Your task to perform on an android device: What's on my calendar today? Image 0: 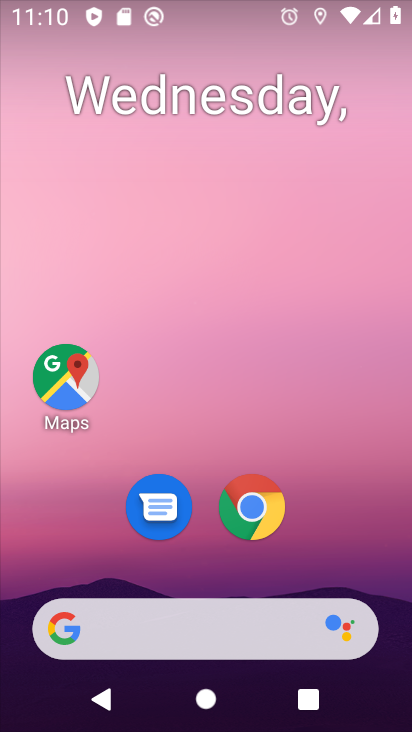
Step 0: drag from (359, 511) to (346, 128)
Your task to perform on an android device: What's on my calendar today? Image 1: 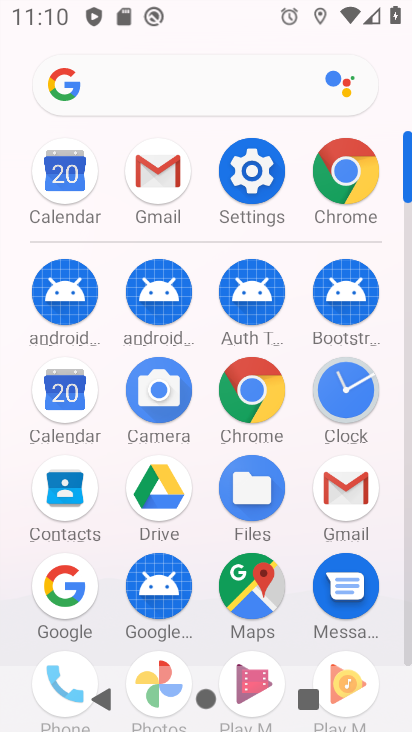
Step 1: click (68, 401)
Your task to perform on an android device: What's on my calendar today? Image 2: 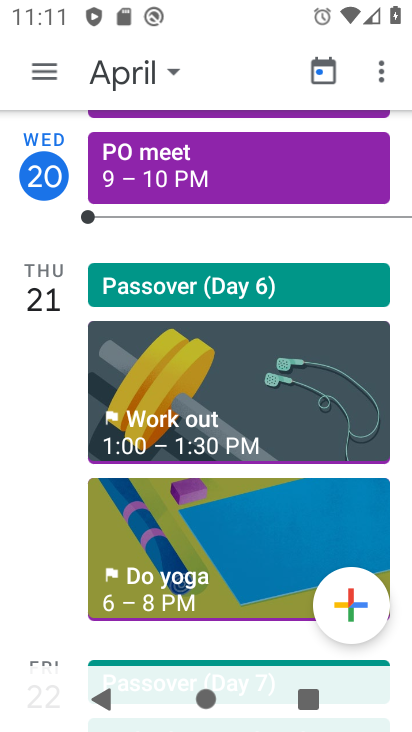
Step 2: click (164, 65)
Your task to perform on an android device: What's on my calendar today? Image 3: 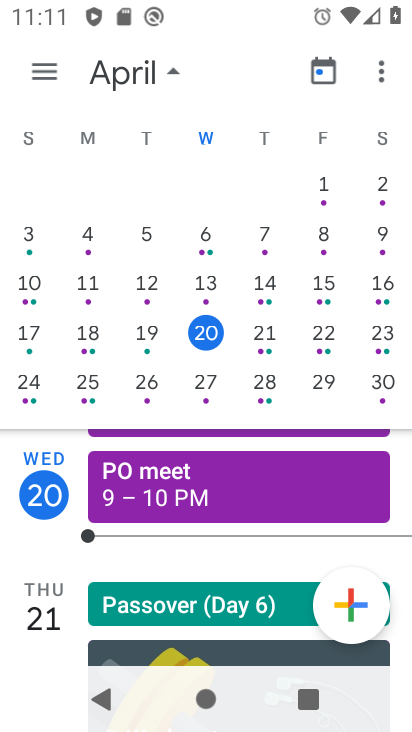
Step 3: click (264, 330)
Your task to perform on an android device: What's on my calendar today? Image 4: 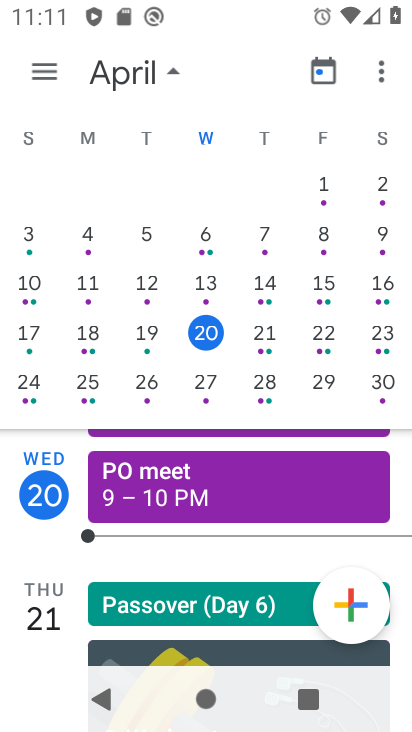
Step 4: click (271, 336)
Your task to perform on an android device: What's on my calendar today? Image 5: 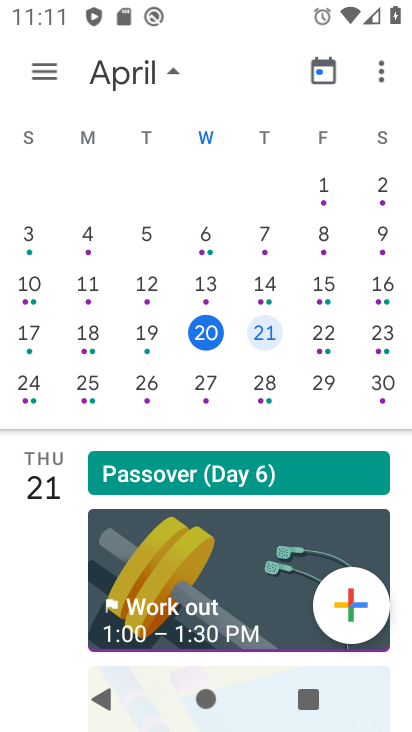
Step 5: task complete